Your task to perform on an android device: move an email to a new category in the gmail app Image 0: 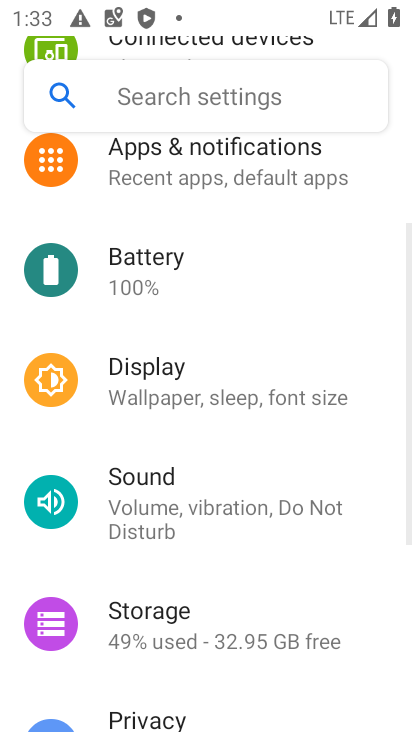
Step 0: press home button
Your task to perform on an android device: move an email to a new category in the gmail app Image 1: 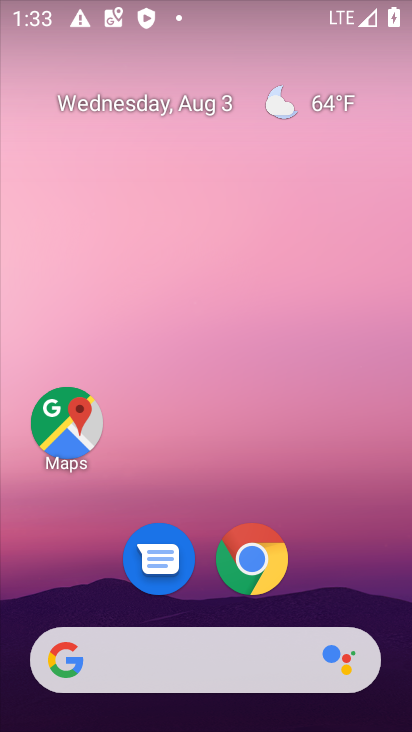
Step 1: drag from (221, 612) to (220, 147)
Your task to perform on an android device: move an email to a new category in the gmail app Image 2: 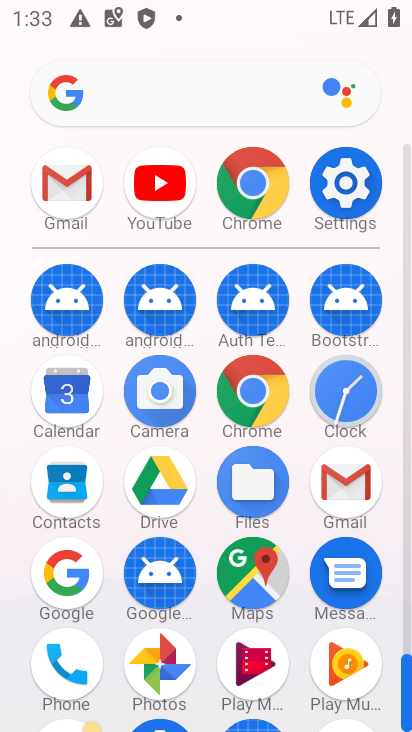
Step 2: click (348, 479)
Your task to perform on an android device: move an email to a new category in the gmail app Image 3: 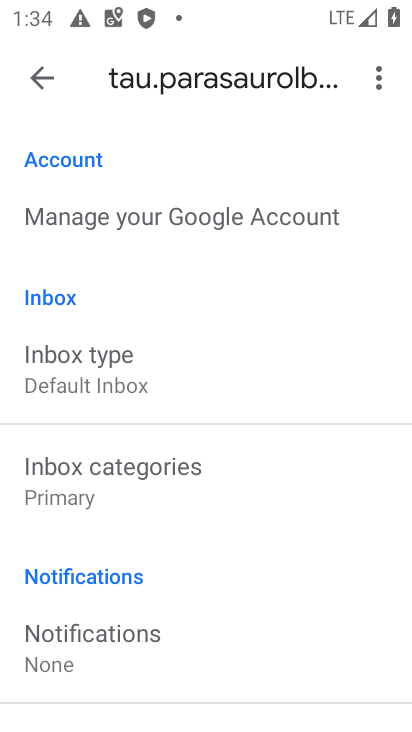
Step 3: click (47, 68)
Your task to perform on an android device: move an email to a new category in the gmail app Image 4: 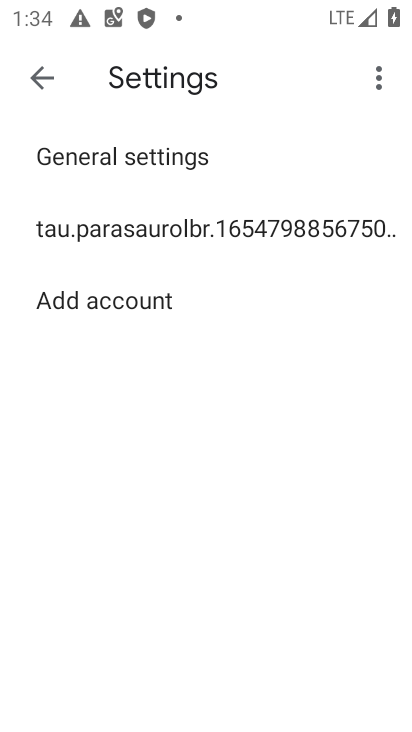
Step 4: click (49, 85)
Your task to perform on an android device: move an email to a new category in the gmail app Image 5: 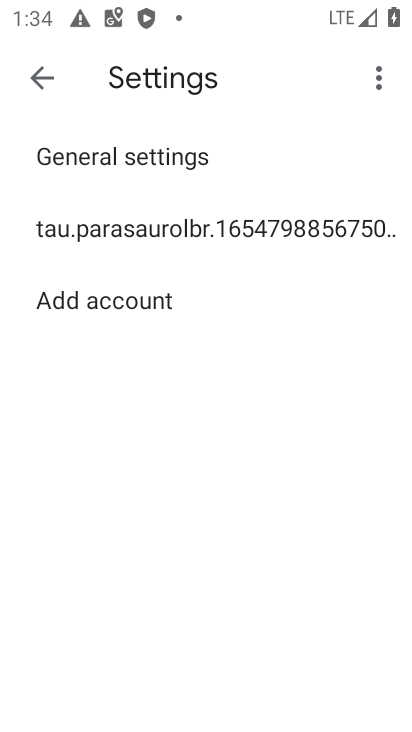
Step 5: click (43, 73)
Your task to perform on an android device: move an email to a new category in the gmail app Image 6: 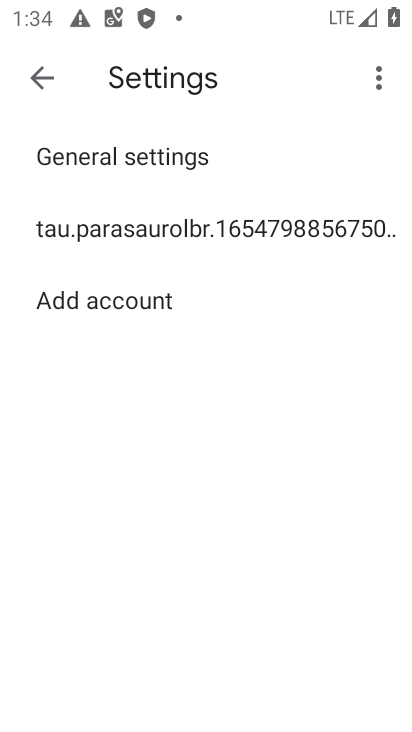
Step 6: click (36, 73)
Your task to perform on an android device: move an email to a new category in the gmail app Image 7: 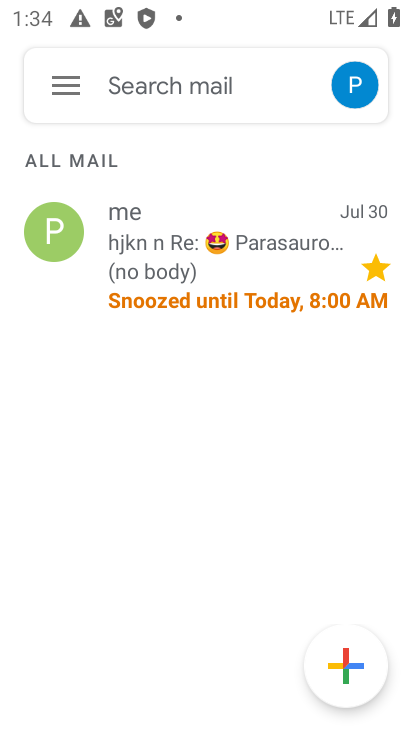
Step 7: click (208, 267)
Your task to perform on an android device: move an email to a new category in the gmail app Image 8: 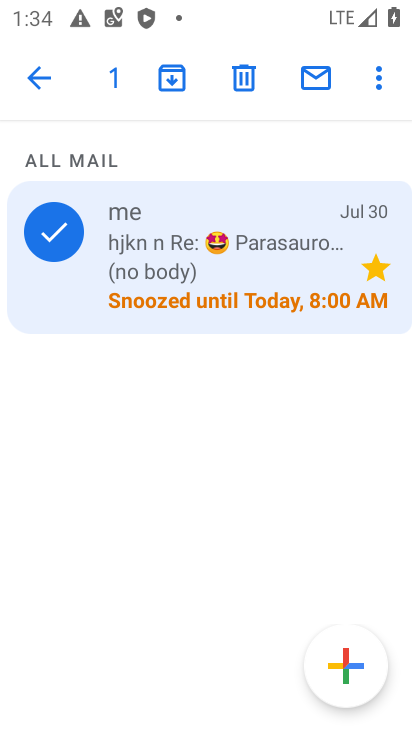
Step 8: click (385, 82)
Your task to perform on an android device: move an email to a new category in the gmail app Image 9: 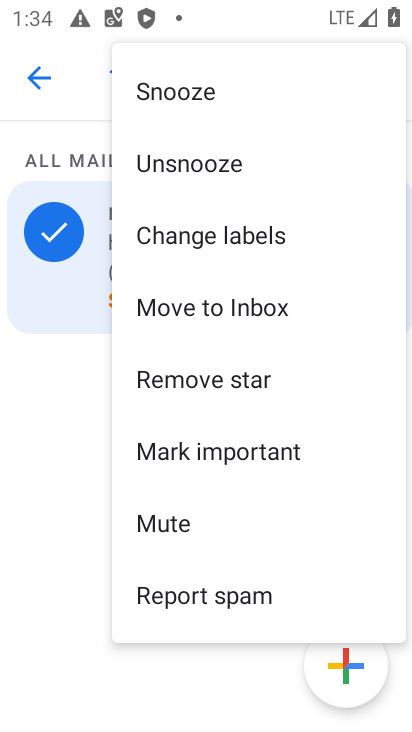
Step 9: click (195, 305)
Your task to perform on an android device: move an email to a new category in the gmail app Image 10: 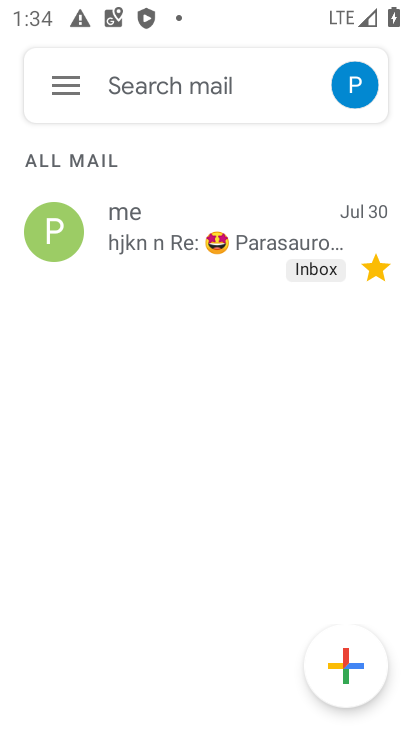
Step 10: task complete